Your task to perform on an android device: Open Yahoo.com Image 0: 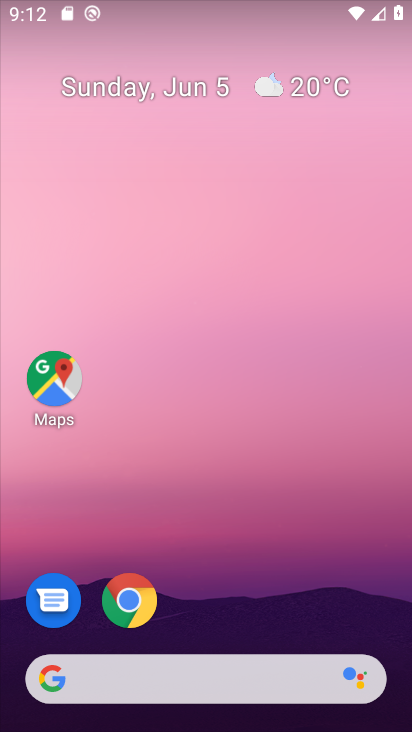
Step 0: drag from (261, 597) to (287, 64)
Your task to perform on an android device: Open Yahoo.com Image 1: 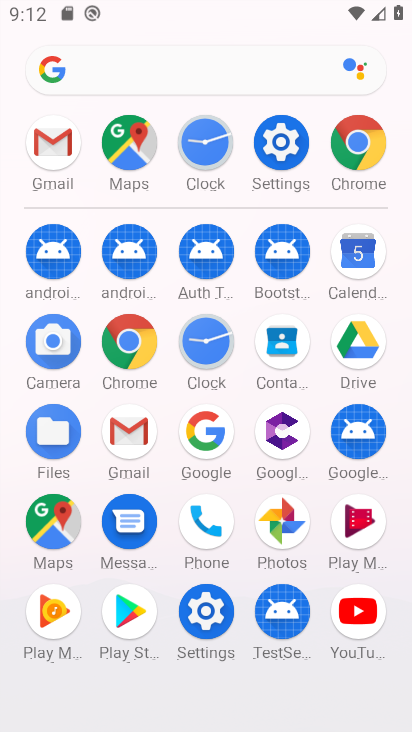
Step 1: press home button
Your task to perform on an android device: Open Yahoo.com Image 2: 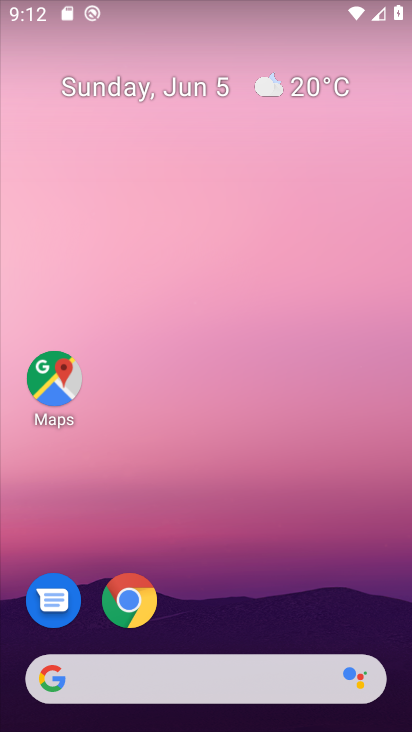
Step 2: click (174, 683)
Your task to perform on an android device: Open Yahoo.com Image 3: 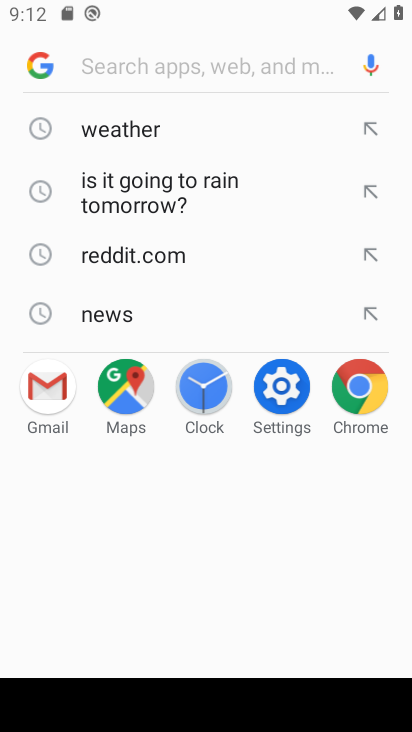
Step 3: type "yahoo.com"
Your task to perform on an android device: Open Yahoo.com Image 4: 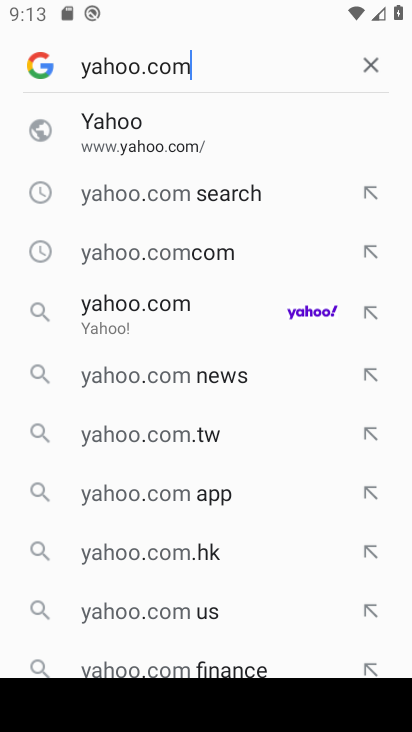
Step 4: click (182, 314)
Your task to perform on an android device: Open Yahoo.com Image 5: 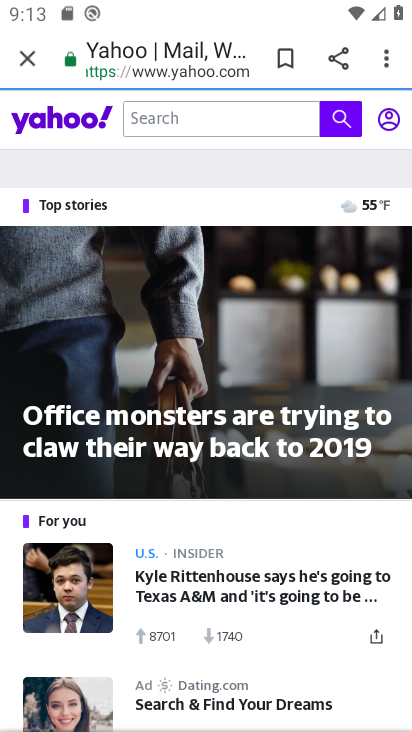
Step 5: task complete